Your task to perform on an android device: toggle priority inbox in the gmail app Image 0: 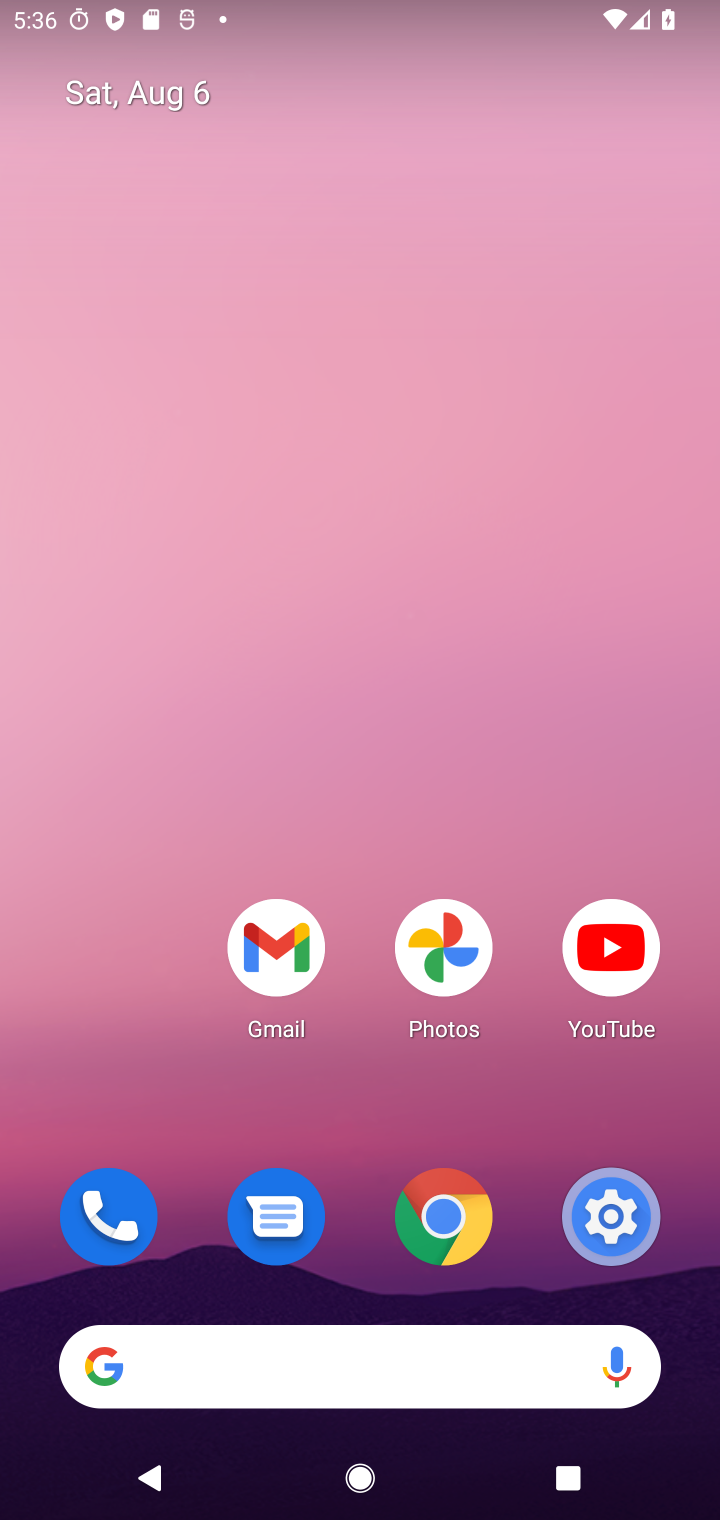
Step 0: drag from (487, 792) to (332, 2)
Your task to perform on an android device: toggle priority inbox in the gmail app Image 1: 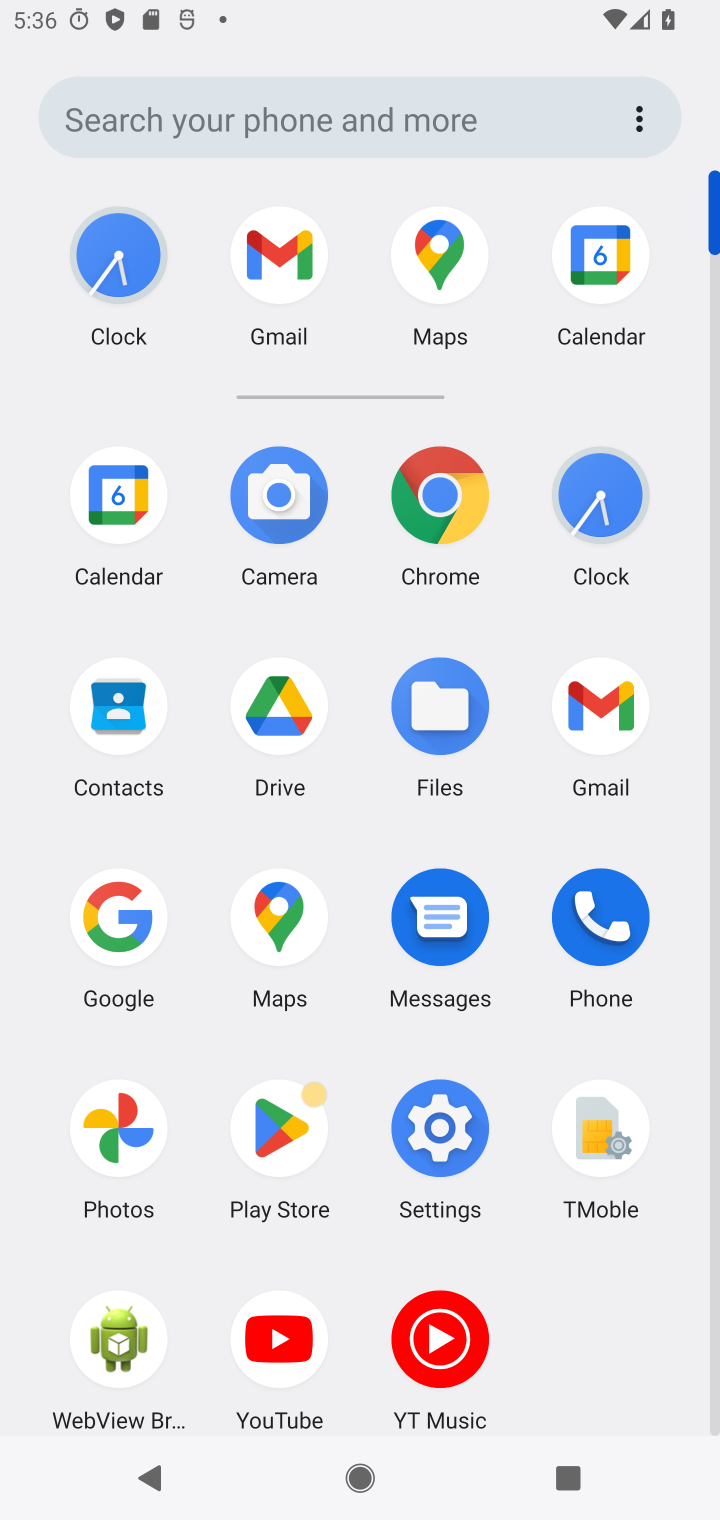
Step 1: click (599, 692)
Your task to perform on an android device: toggle priority inbox in the gmail app Image 2: 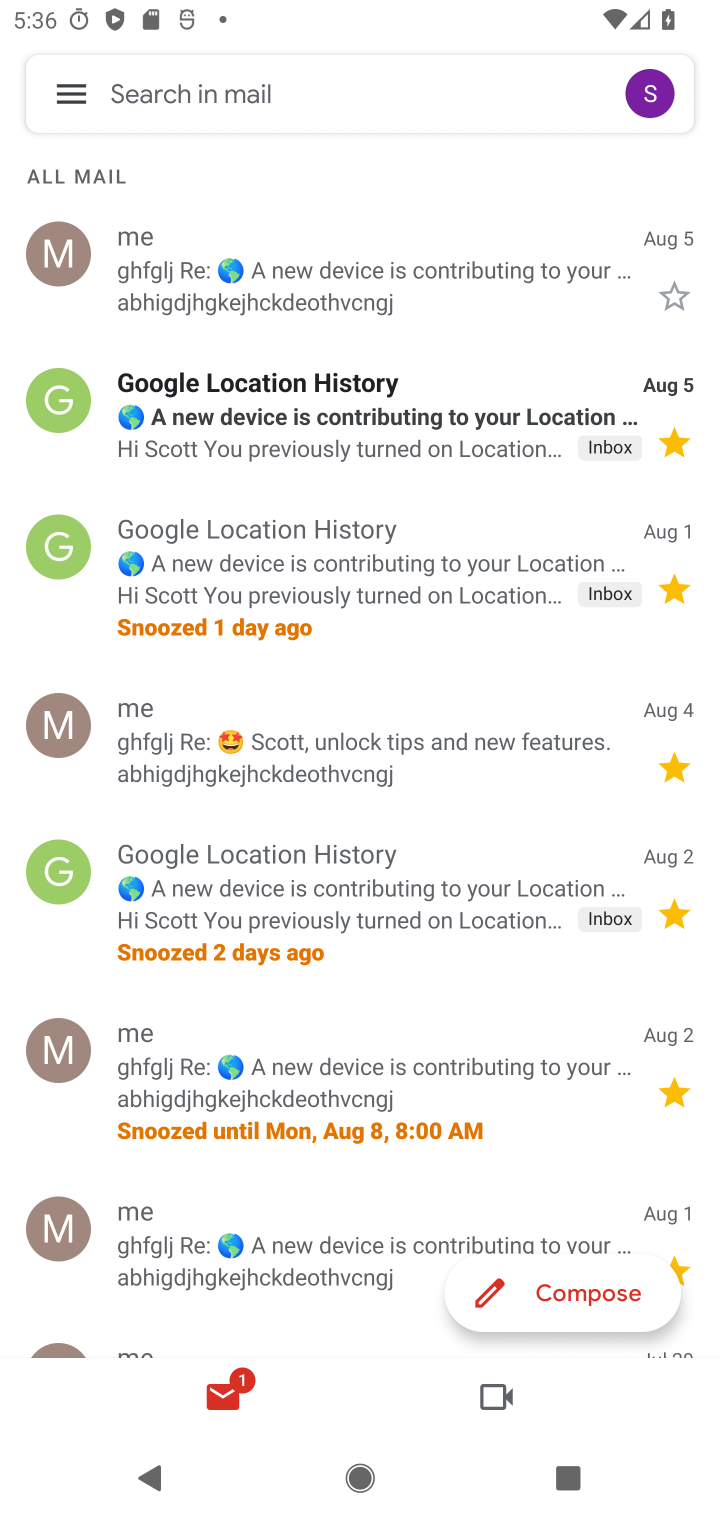
Step 2: click (56, 82)
Your task to perform on an android device: toggle priority inbox in the gmail app Image 3: 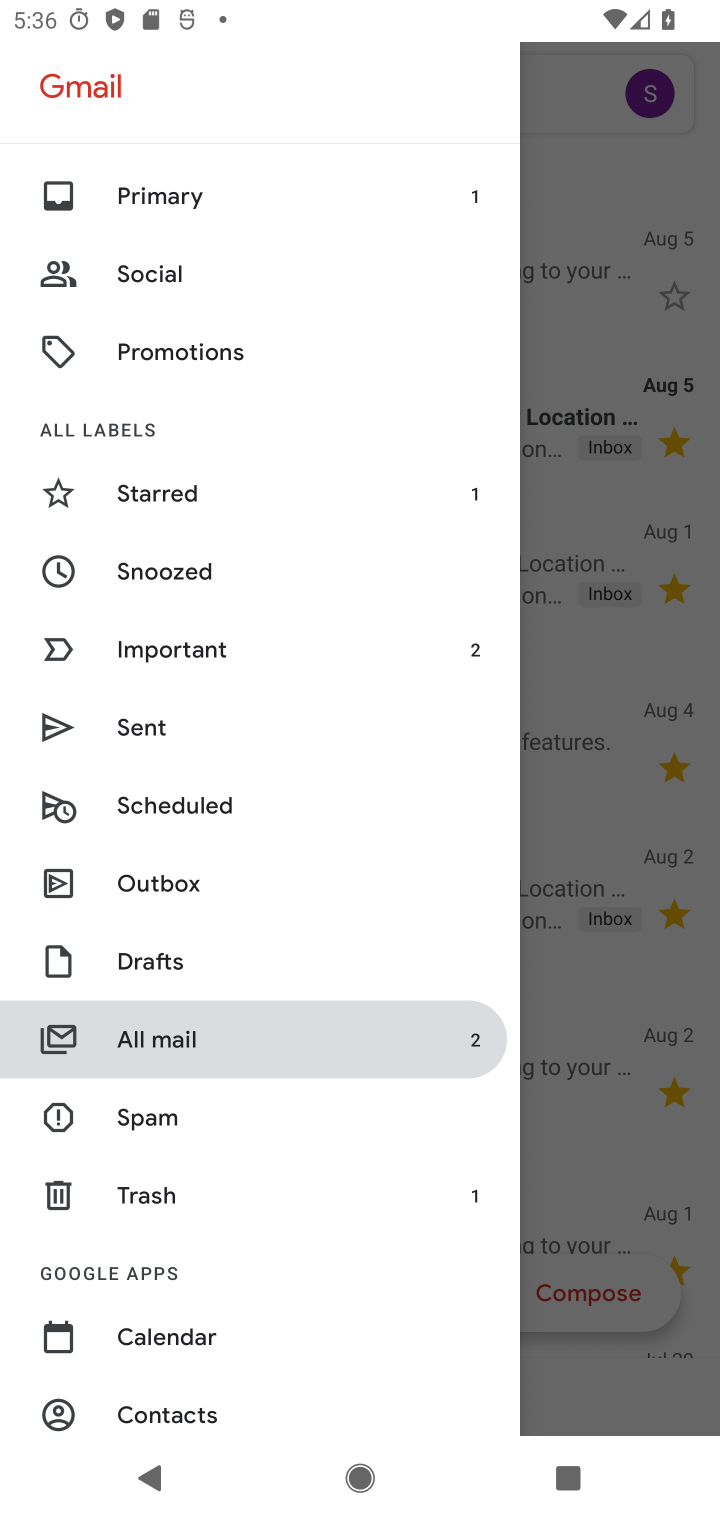
Step 3: drag from (258, 1335) to (457, 625)
Your task to perform on an android device: toggle priority inbox in the gmail app Image 4: 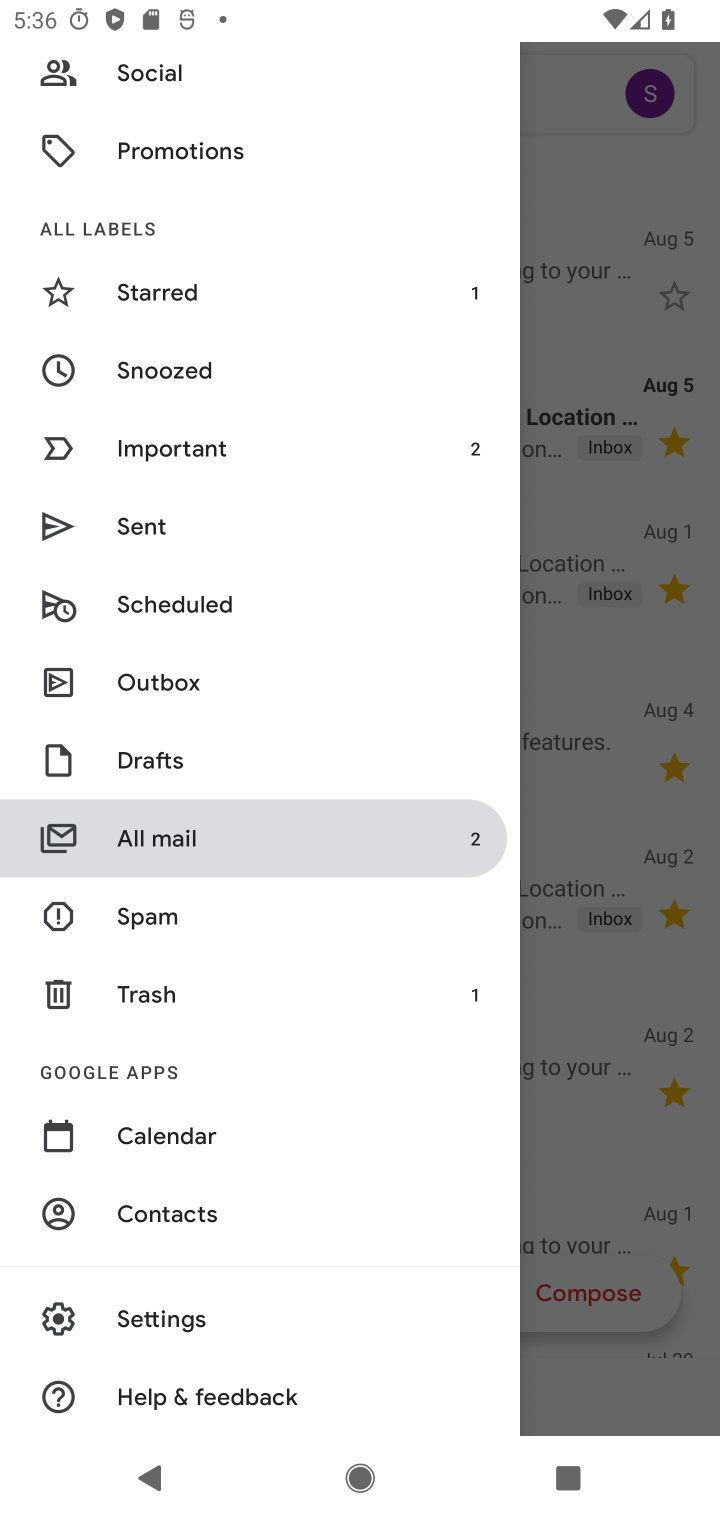
Step 4: click (139, 1312)
Your task to perform on an android device: toggle priority inbox in the gmail app Image 5: 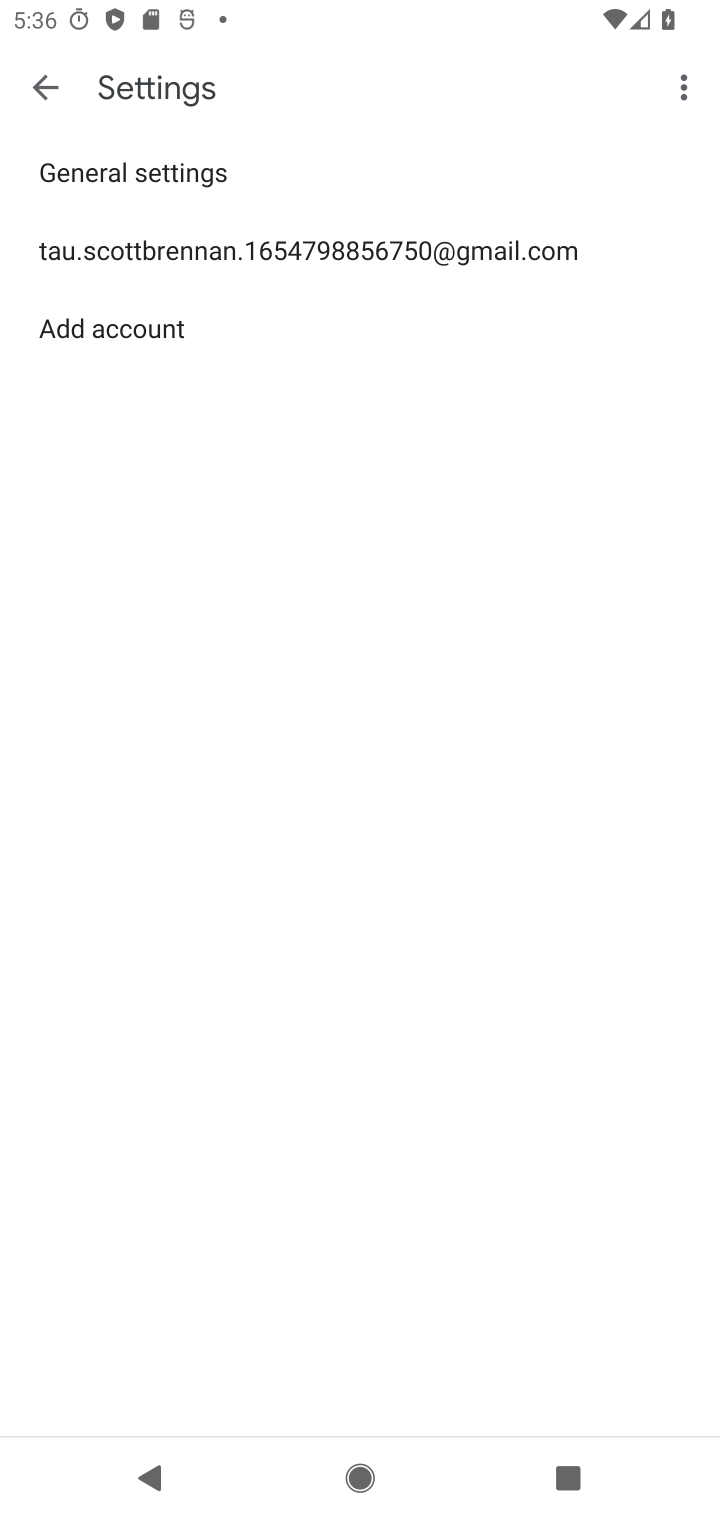
Step 5: click (397, 273)
Your task to perform on an android device: toggle priority inbox in the gmail app Image 6: 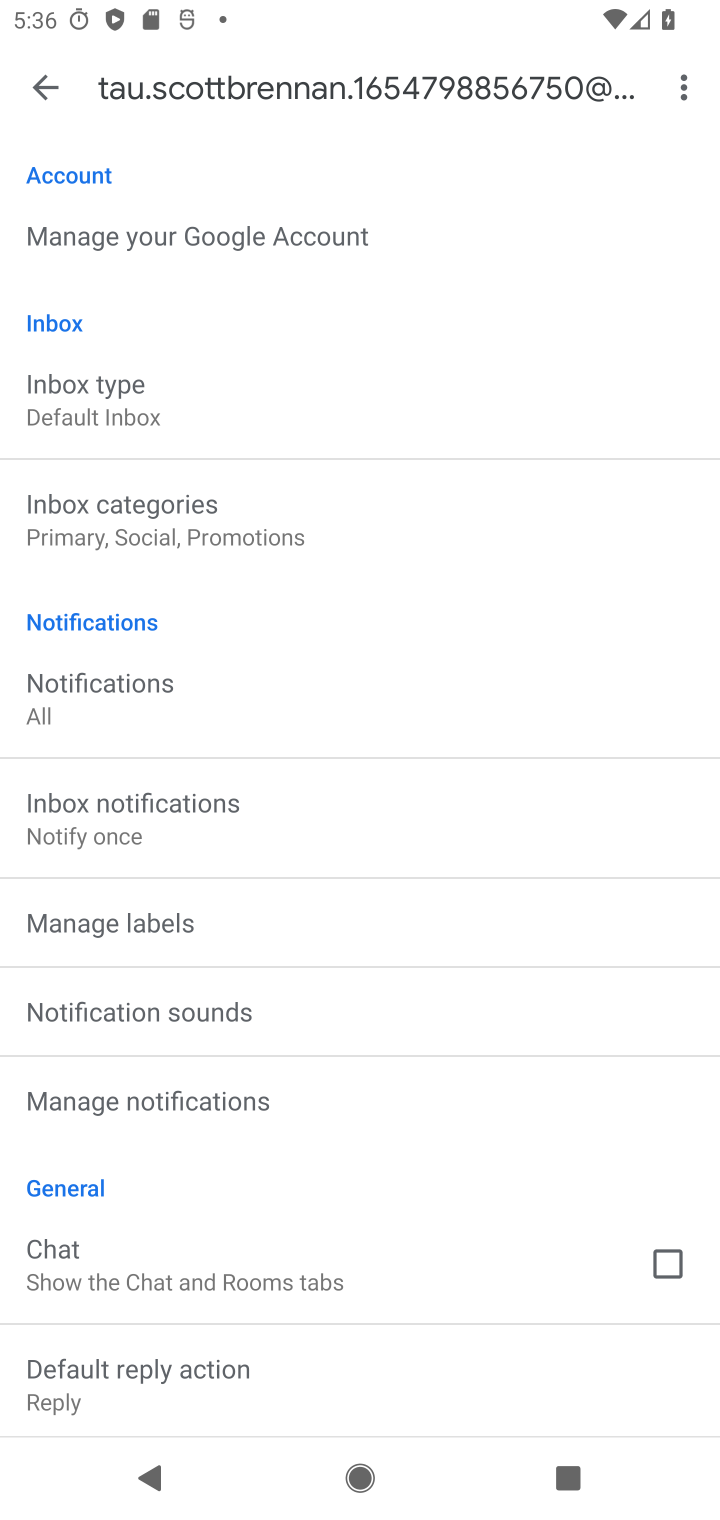
Step 6: click (132, 416)
Your task to perform on an android device: toggle priority inbox in the gmail app Image 7: 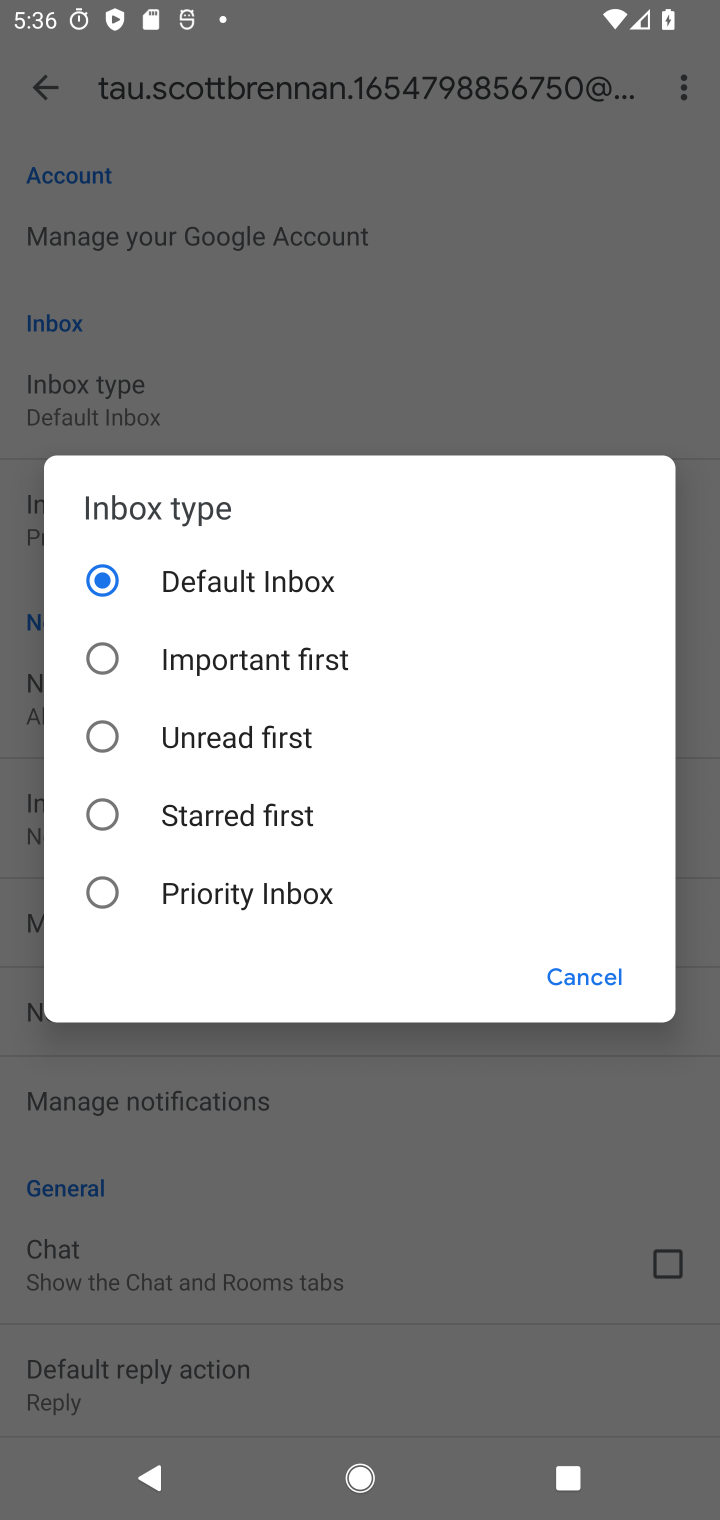
Step 7: click (231, 893)
Your task to perform on an android device: toggle priority inbox in the gmail app Image 8: 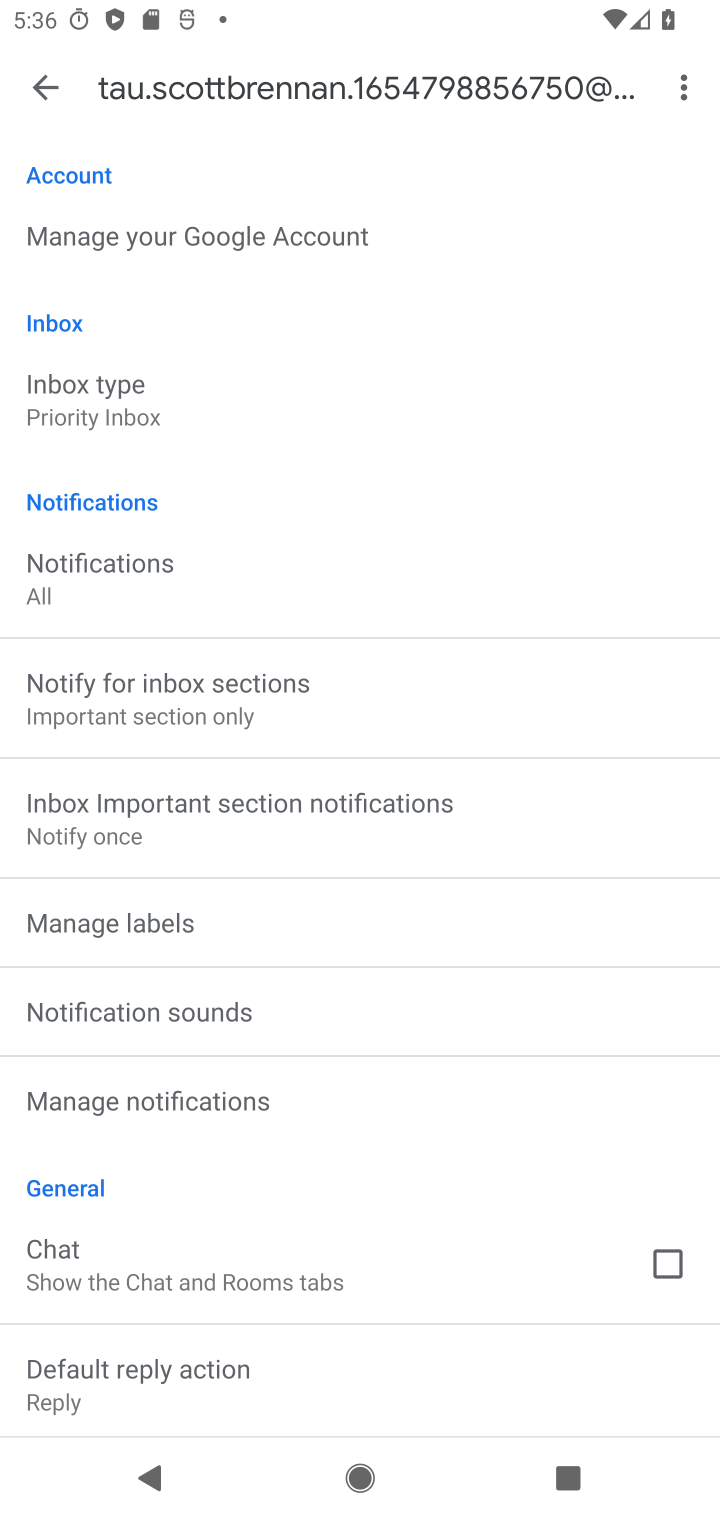
Step 8: task complete